Your task to perform on an android device: Open the web browser Image 0: 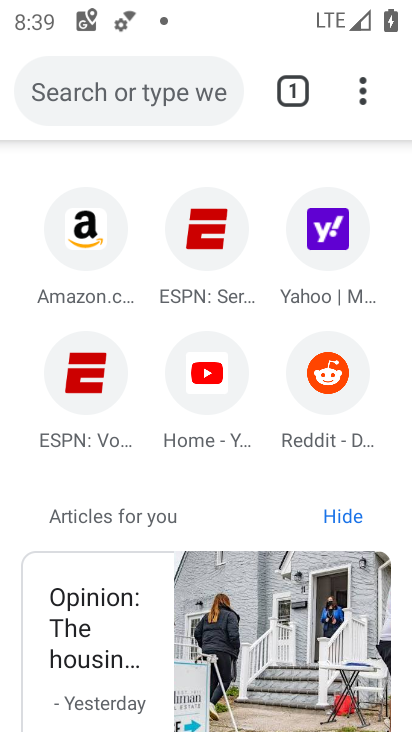
Step 0: press home button
Your task to perform on an android device: Open the web browser Image 1: 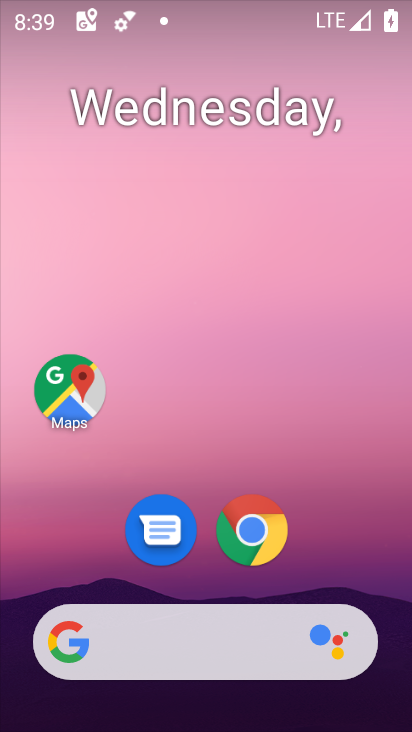
Step 1: click (244, 515)
Your task to perform on an android device: Open the web browser Image 2: 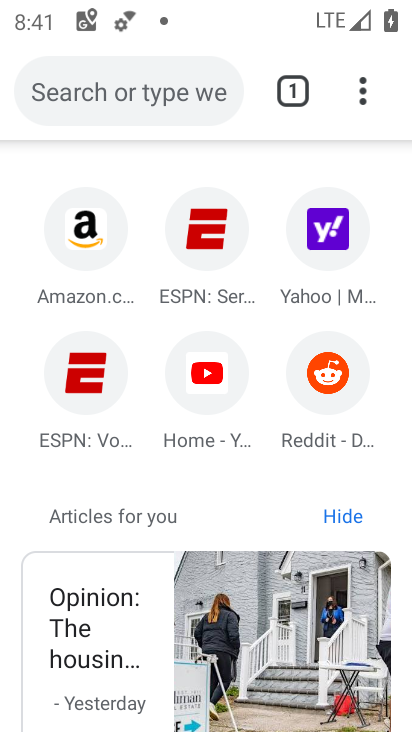
Step 2: task complete